Your task to perform on an android device: Open calendar and show me the fourth week of next month Image 0: 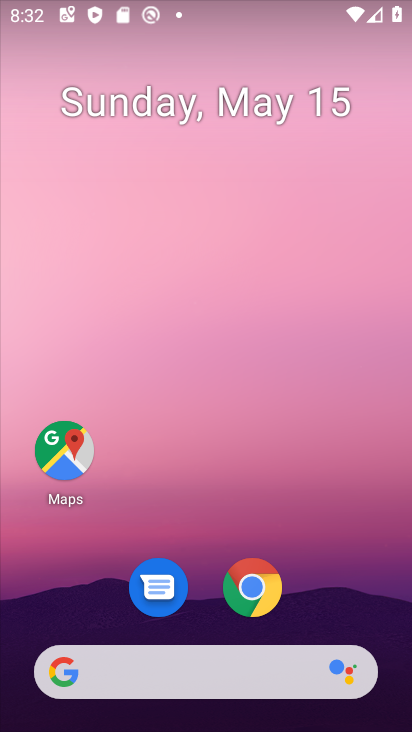
Step 0: drag from (383, 610) to (407, 543)
Your task to perform on an android device: Open calendar and show me the fourth week of next month Image 1: 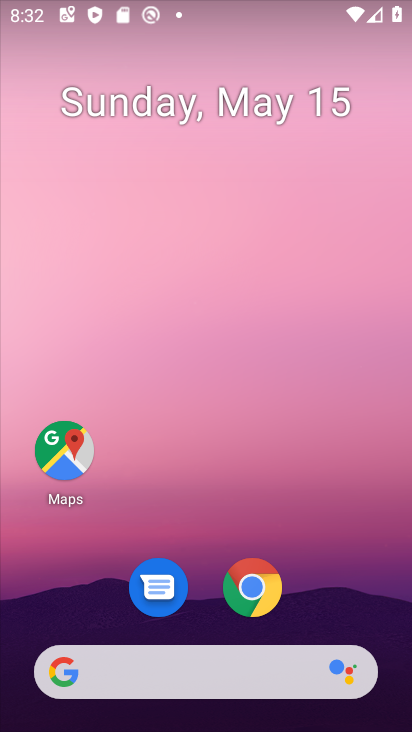
Step 1: drag from (383, 614) to (292, 50)
Your task to perform on an android device: Open calendar and show me the fourth week of next month Image 2: 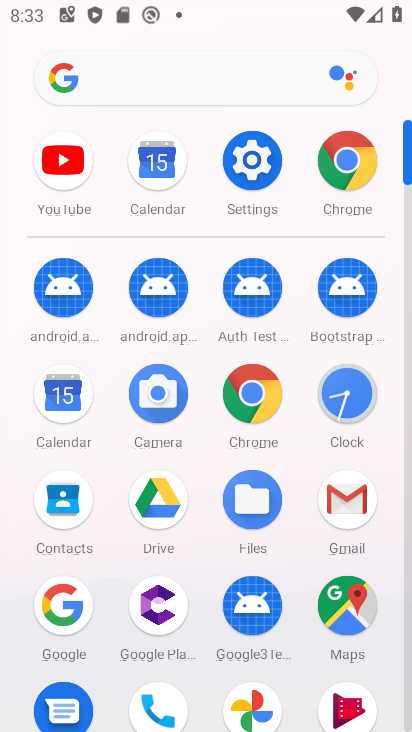
Step 2: click (51, 398)
Your task to perform on an android device: Open calendar and show me the fourth week of next month Image 3: 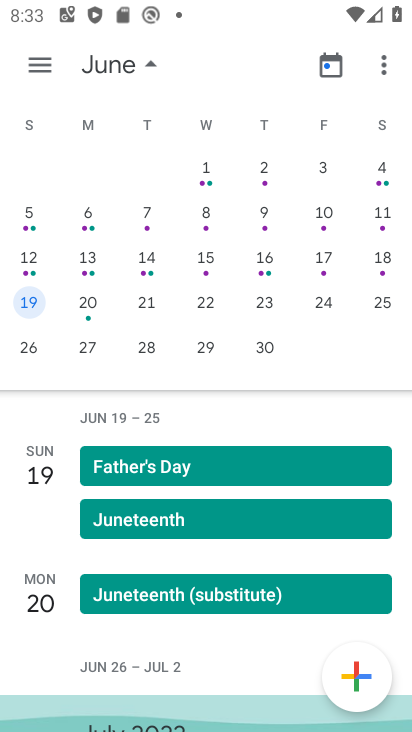
Step 3: drag from (341, 306) to (13, 249)
Your task to perform on an android device: Open calendar and show me the fourth week of next month Image 4: 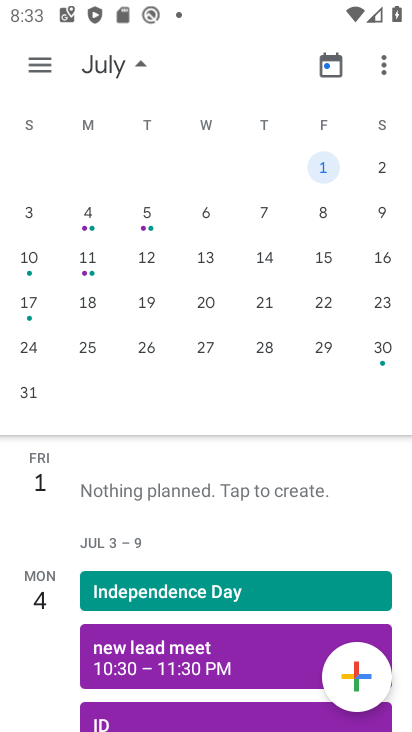
Step 4: click (26, 335)
Your task to perform on an android device: Open calendar and show me the fourth week of next month Image 5: 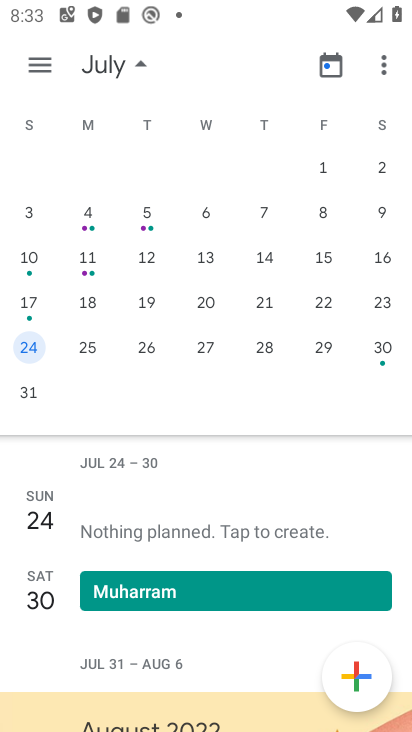
Step 5: task complete